Your task to perform on an android device: Open the map Image 0: 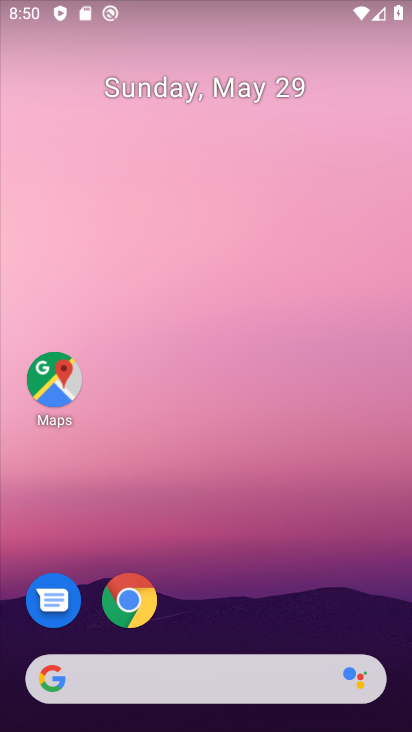
Step 0: drag from (235, 721) to (236, 102)
Your task to perform on an android device: Open the map Image 1: 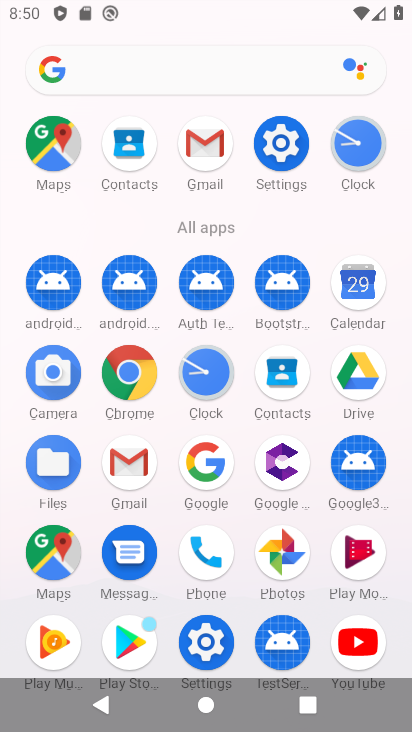
Step 1: click (53, 554)
Your task to perform on an android device: Open the map Image 2: 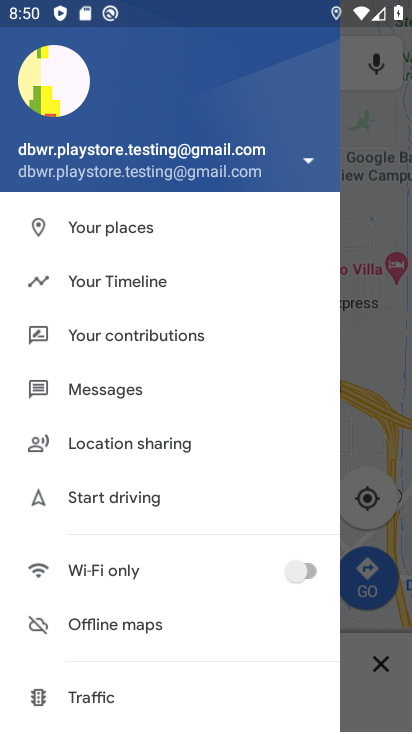
Step 2: click (391, 123)
Your task to perform on an android device: Open the map Image 3: 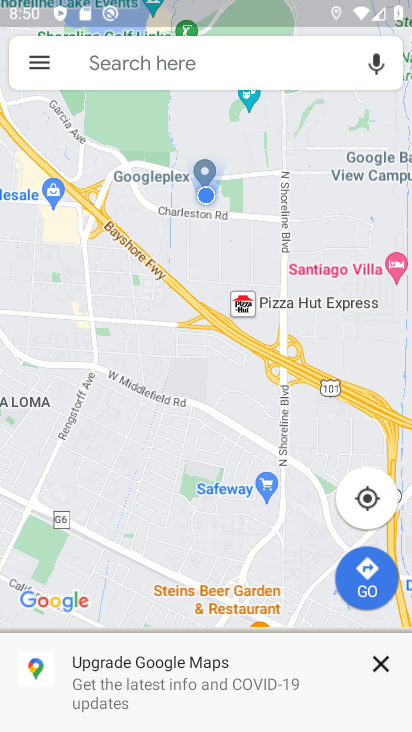
Step 3: task complete